Your task to perform on an android device: Open Google Maps and go to "Timeline" Image 0: 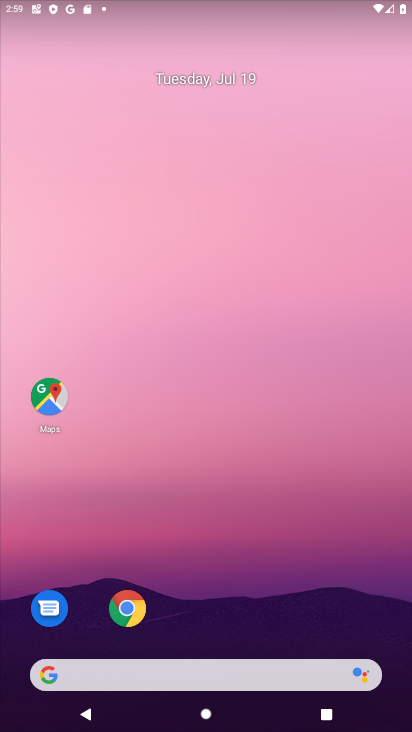
Step 0: drag from (246, 600) to (220, 89)
Your task to perform on an android device: Open Google Maps and go to "Timeline" Image 1: 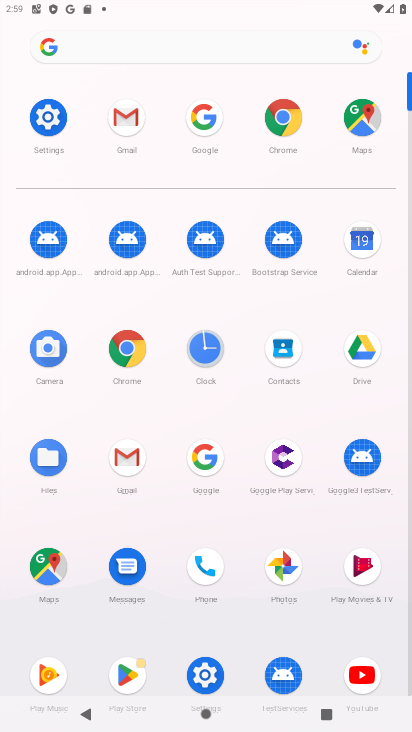
Step 1: click (52, 570)
Your task to perform on an android device: Open Google Maps and go to "Timeline" Image 2: 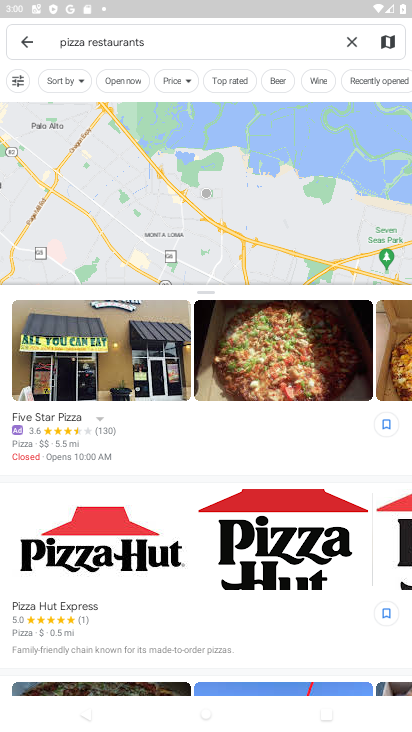
Step 2: click (23, 33)
Your task to perform on an android device: Open Google Maps and go to "Timeline" Image 3: 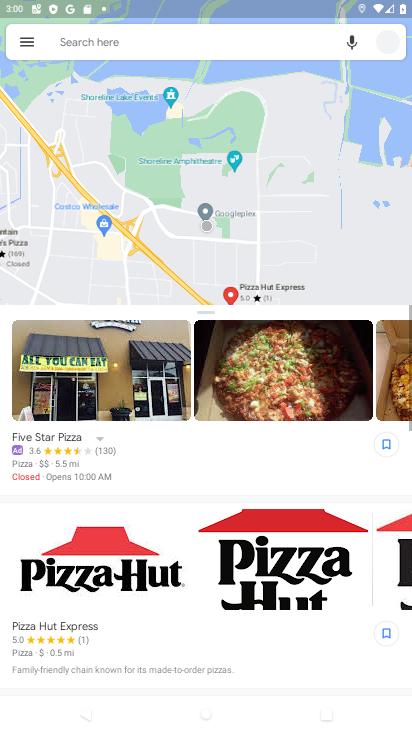
Step 3: click (22, 40)
Your task to perform on an android device: Open Google Maps and go to "Timeline" Image 4: 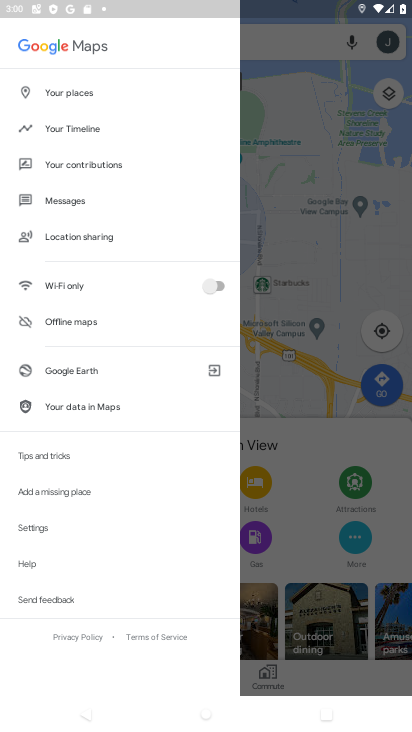
Step 4: click (88, 133)
Your task to perform on an android device: Open Google Maps and go to "Timeline" Image 5: 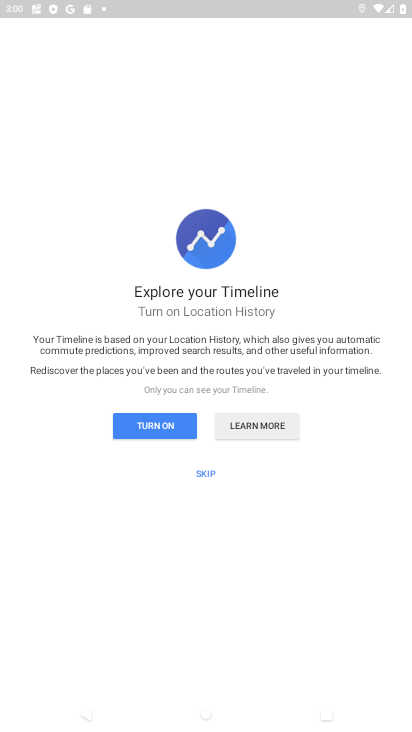
Step 5: click (167, 422)
Your task to perform on an android device: Open Google Maps and go to "Timeline" Image 6: 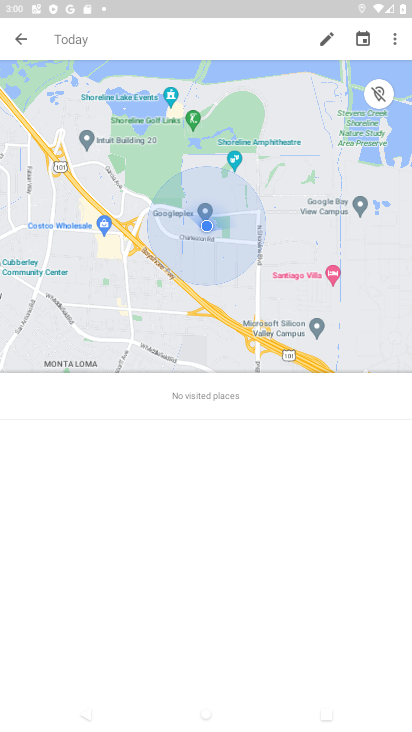
Step 6: click (166, 426)
Your task to perform on an android device: Open Google Maps and go to "Timeline" Image 7: 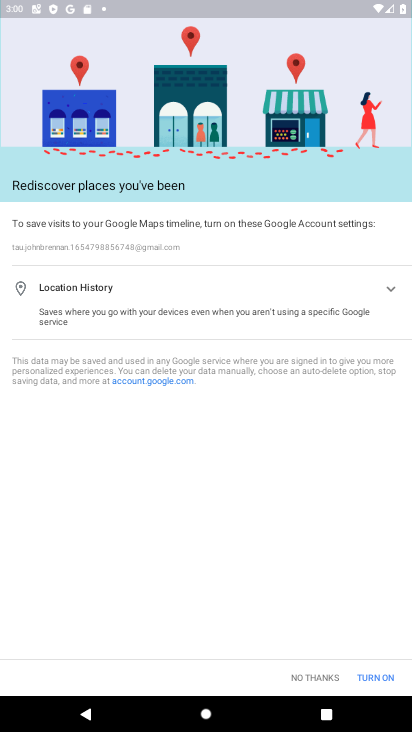
Step 7: click (326, 673)
Your task to perform on an android device: Open Google Maps and go to "Timeline" Image 8: 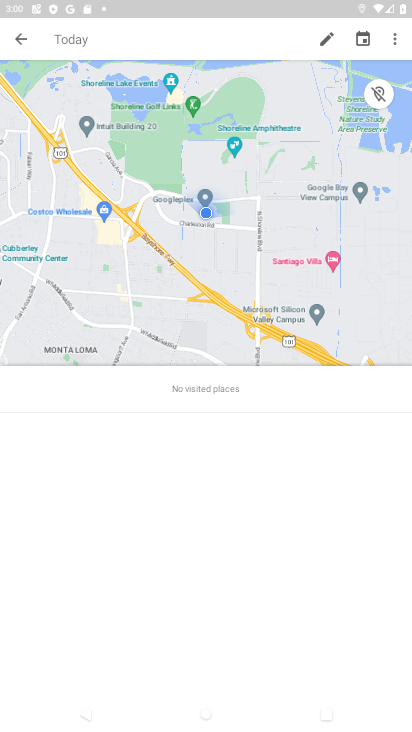
Step 8: task complete